Your task to perform on an android device: clear history in the chrome app Image 0: 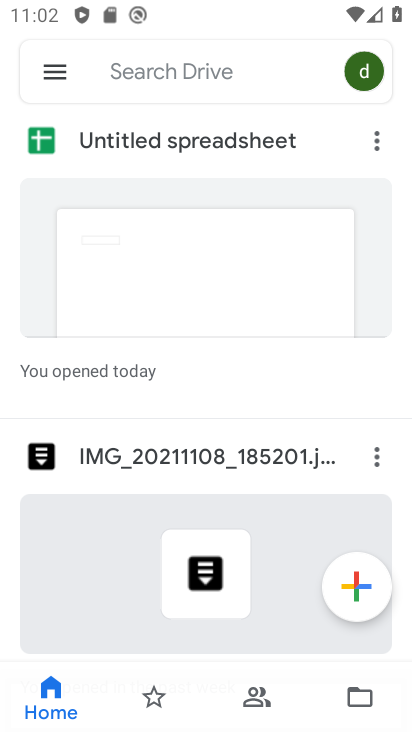
Step 0: press home button
Your task to perform on an android device: clear history in the chrome app Image 1: 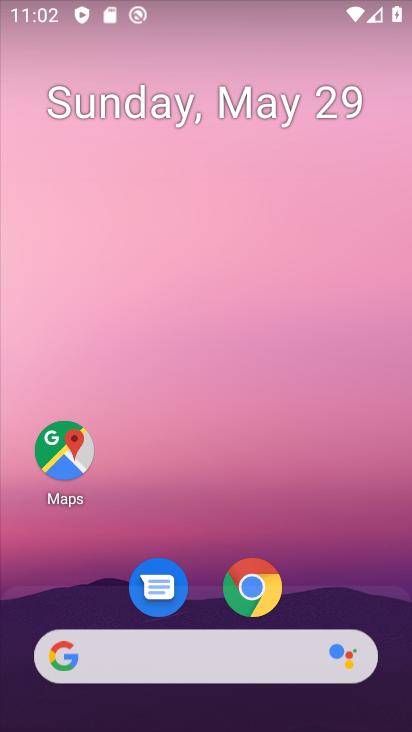
Step 1: click (256, 584)
Your task to perform on an android device: clear history in the chrome app Image 2: 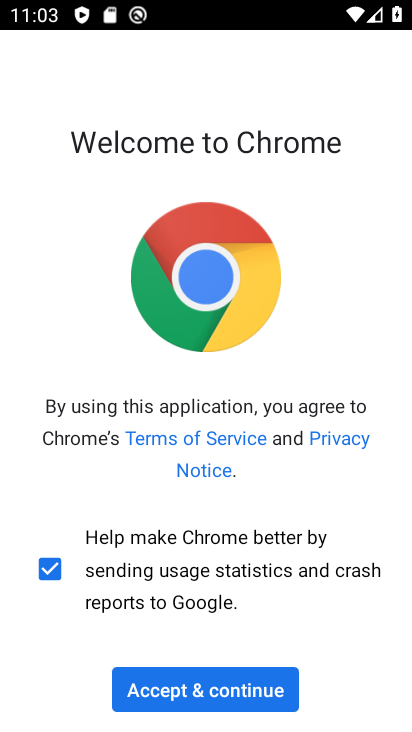
Step 2: click (236, 696)
Your task to perform on an android device: clear history in the chrome app Image 3: 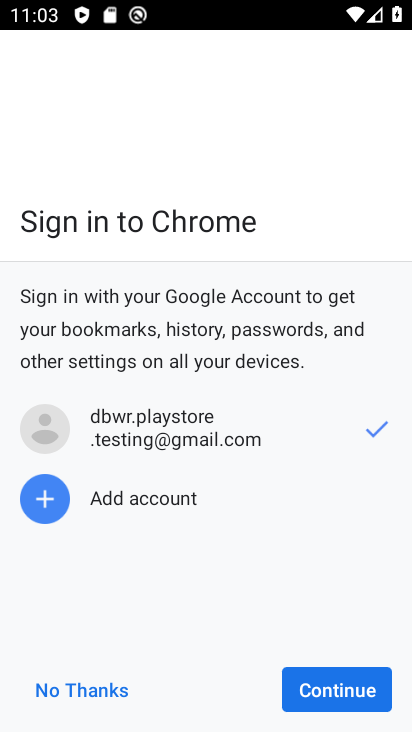
Step 3: click (338, 705)
Your task to perform on an android device: clear history in the chrome app Image 4: 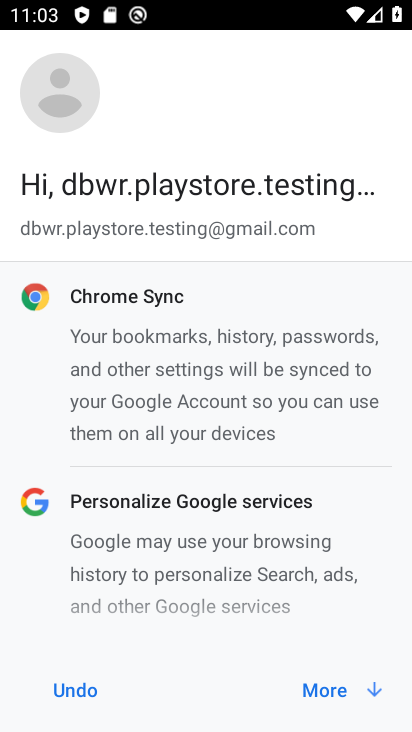
Step 4: click (338, 705)
Your task to perform on an android device: clear history in the chrome app Image 5: 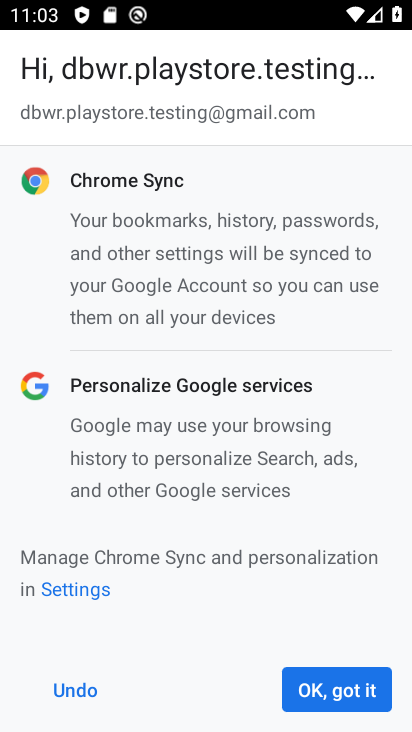
Step 5: click (338, 705)
Your task to perform on an android device: clear history in the chrome app Image 6: 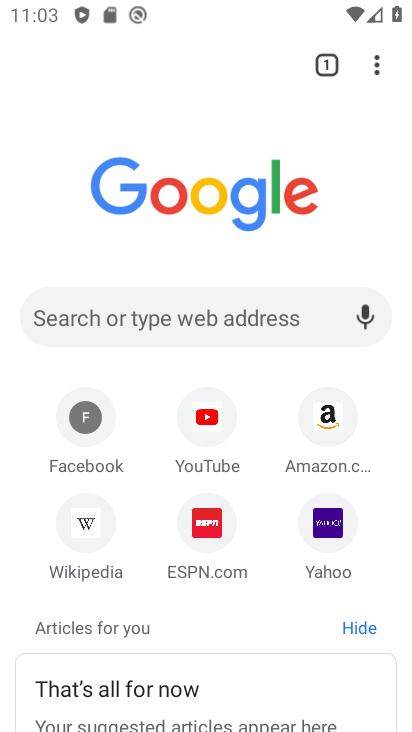
Step 6: task complete